Your task to perform on an android device: check android version Image 0: 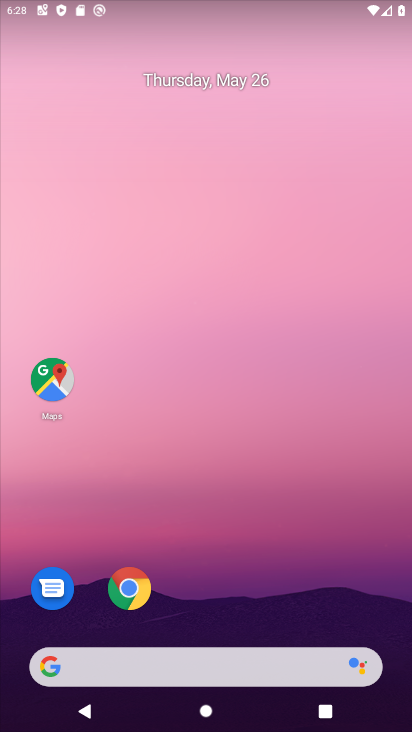
Step 0: drag from (354, 608) to (261, 60)
Your task to perform on an android device: check android version Image 1: 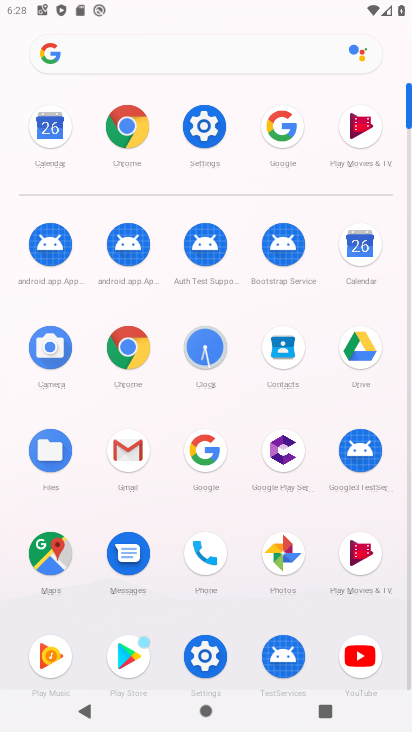
Step 1: click (211, 133)
Your task to perform on an android device: check android version Image 2: 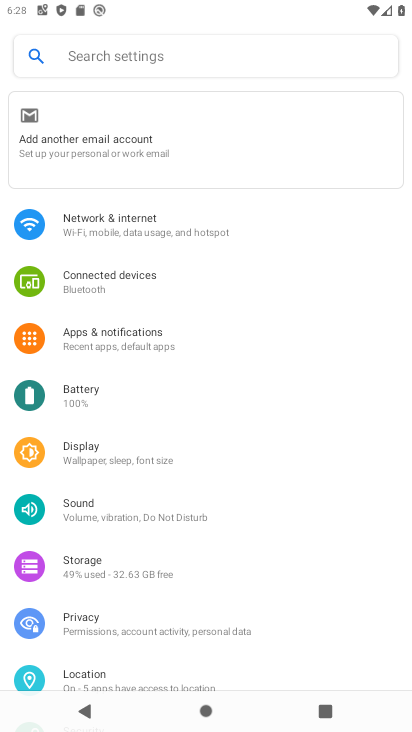
Step 2: drag from (179, 597) to (192, 214)
Your task to perform on an android device: check android version Image 3: 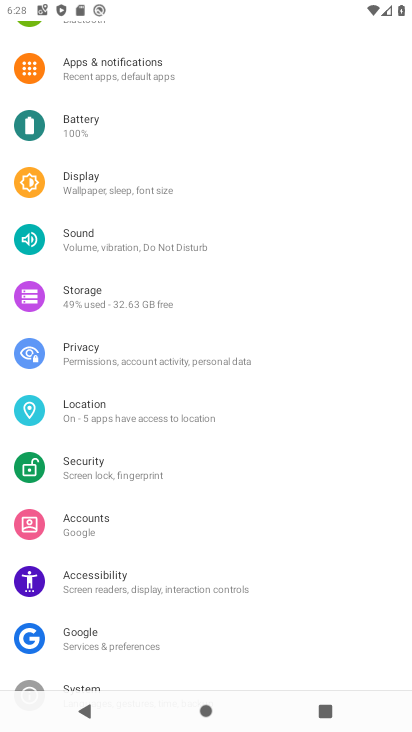
Step 3: drag from (139, 591) to (142, 106)
Your task to perform on an android device: check android version Image 4: 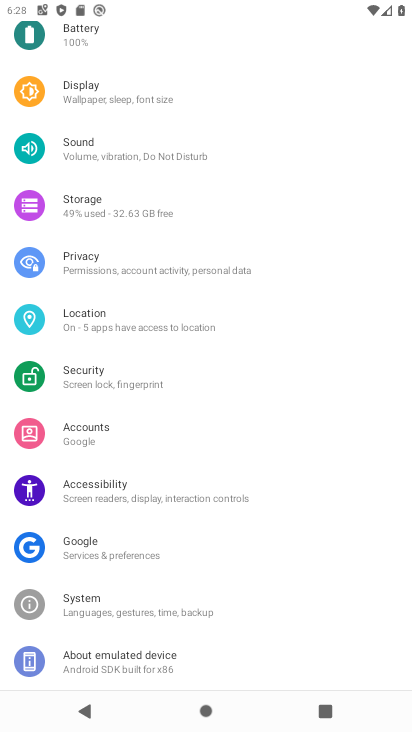
Step 4: click (136, 657)
Your task to perform on an android device: check android version Image 5: 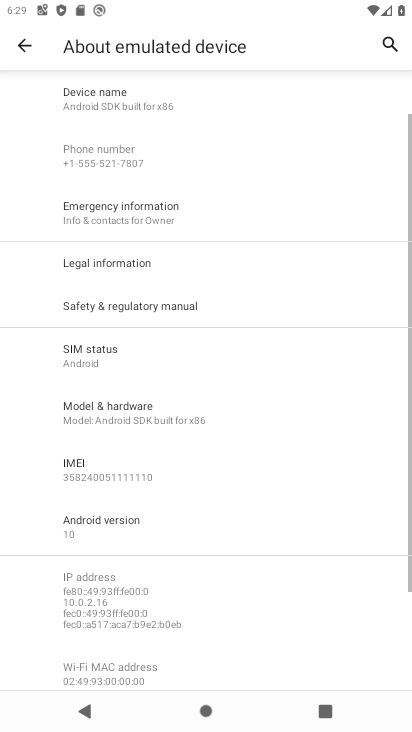
Step 5: click (143, 521)
Your task to perform on an android device: check android version Image 6: 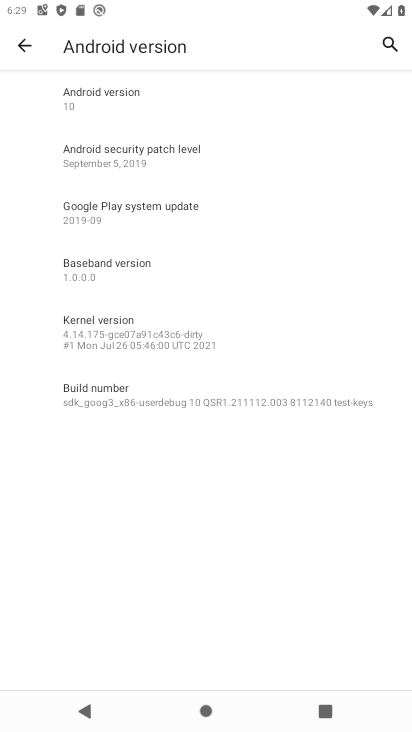
Step 6: task complete